Your task to perform on an android device: turn off translation in the chrome app Image 0: 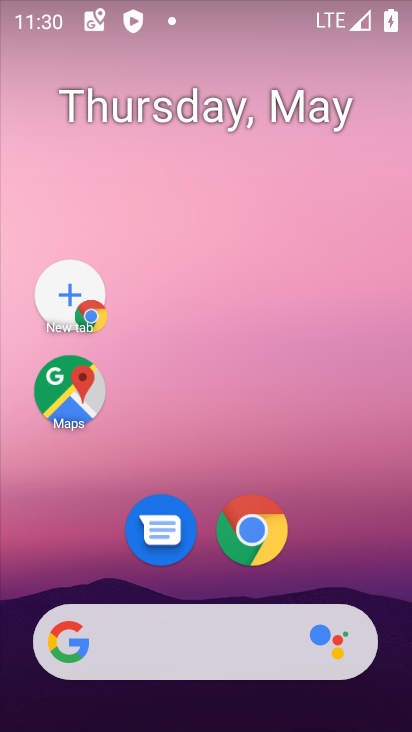
Step 0: drag from (240, 696) to (224, 335)
Your task to perform on an android device: turn off translation in the chrome app Image 1: 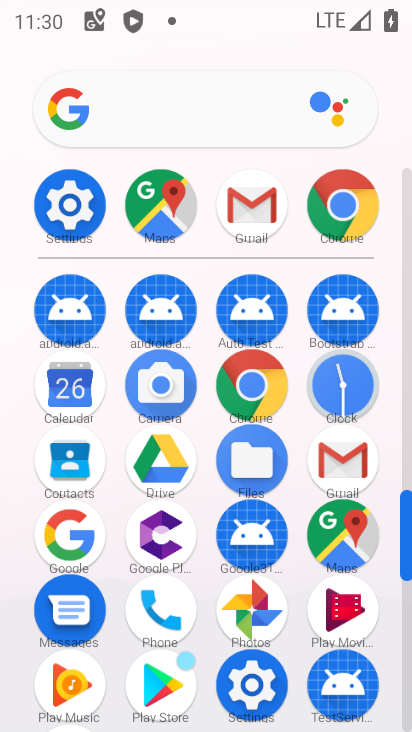
Step 1: click (252, 395)
Your task to perform on an android device: turn off translation in the chrome app Image 2: 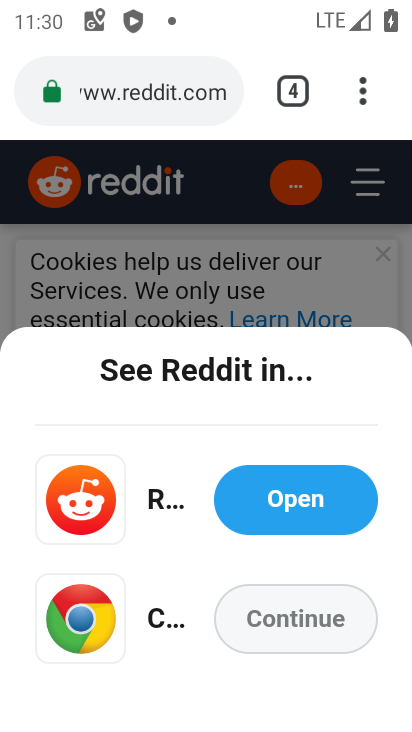
Step 2: press back button
Your task to perform on an android device: turn off translation in the chrome app Image 3: 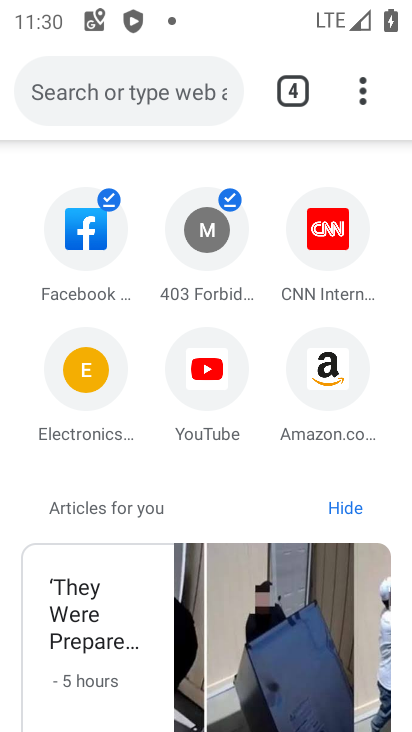
Step 3: drag from (360, 90) to (93, 551)
Your task to perform on an android device: turn off translation in the chrome app Image 4: 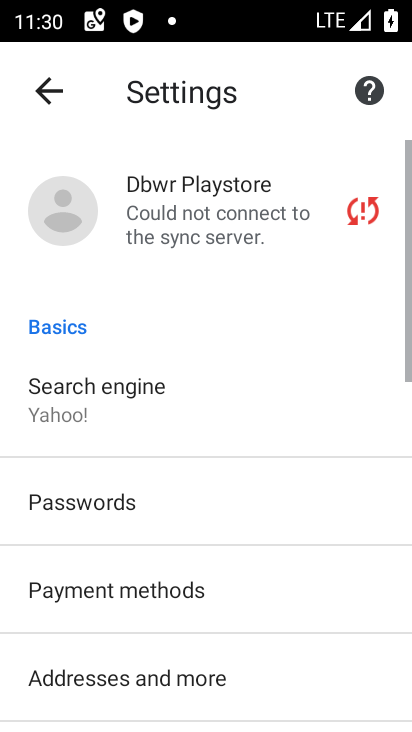
Step 4: click (93, 551)
Your task to perform on an android device: turn off translation in the chrome app Image 5: 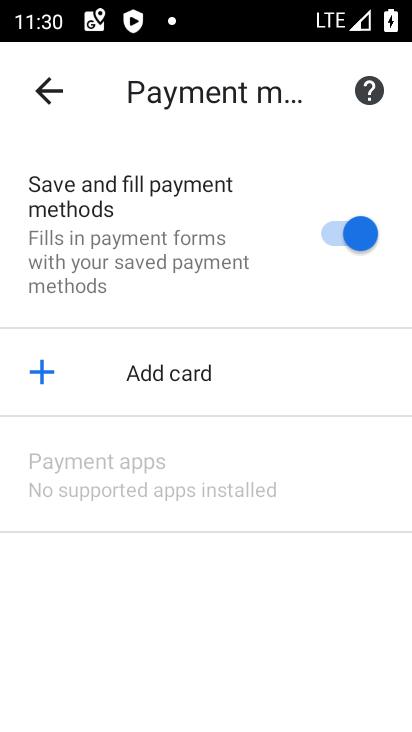
Step 5: click (51, 97)
Your task to perform on an android device: turn off translation in the chrome app Image 6: 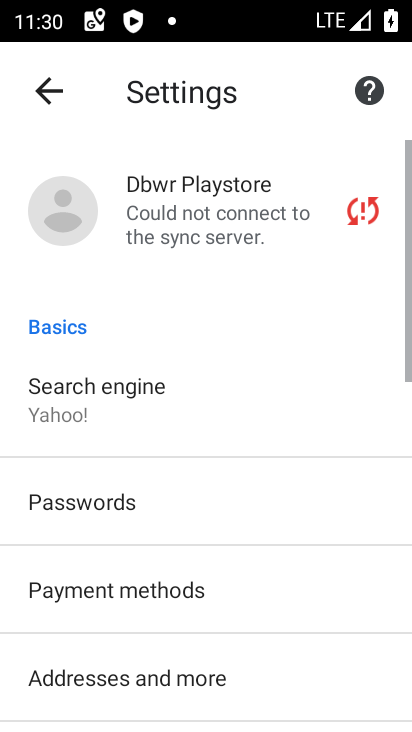
Step 6: click (42, 84)
Your task to perform on an android device: turn off translation in the chrome app Image 7: 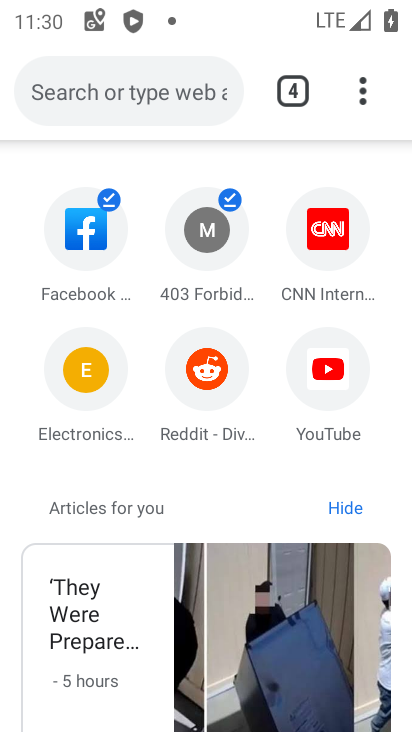
Step 7: drag from (139, 552) to (203, 246)
Your task to perform on an android device: turn off translation in the chrome app Image 8: 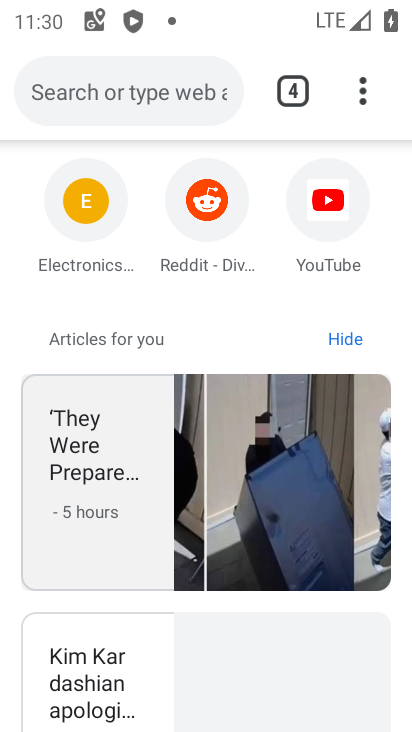
Step 8: drag from (217, 482) to (208, 377)
Your task to perform on an android device: turn off translation in the chrome app Image 9: 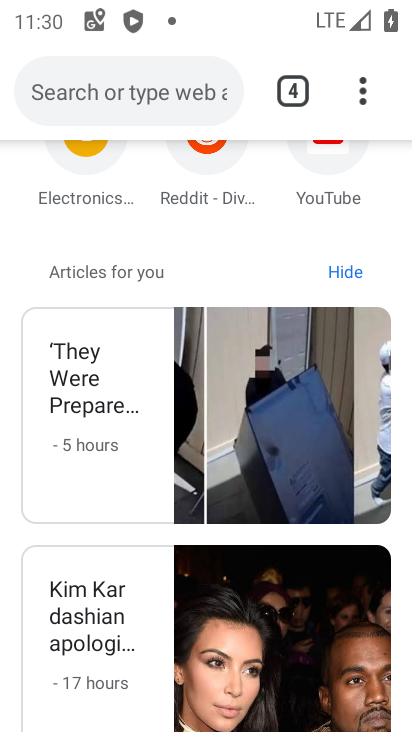
Step 9: drag from (109, 602) to (109, 432)
Your task to perform on an android device: turn off translation in the chrome app Image 10: 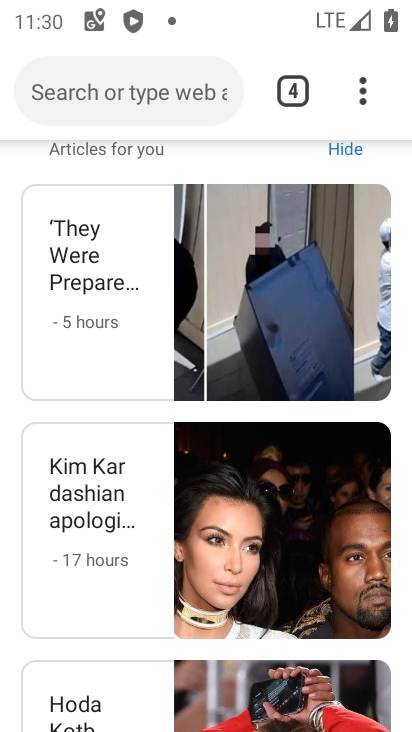
Step 10: drag from (364, 97) to (96, 569)
Your task to perform on an android device: turn off translation in the chrome app Image 11: 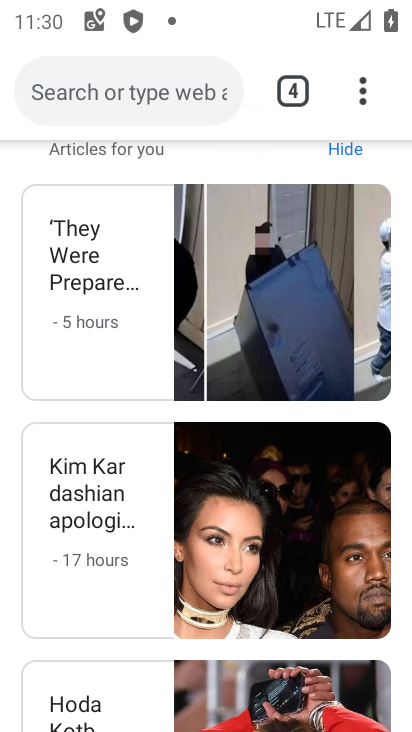
Step 11: click (96, 568)
Your task to perform on an android device: turn off translation in the chrome app Image 12: 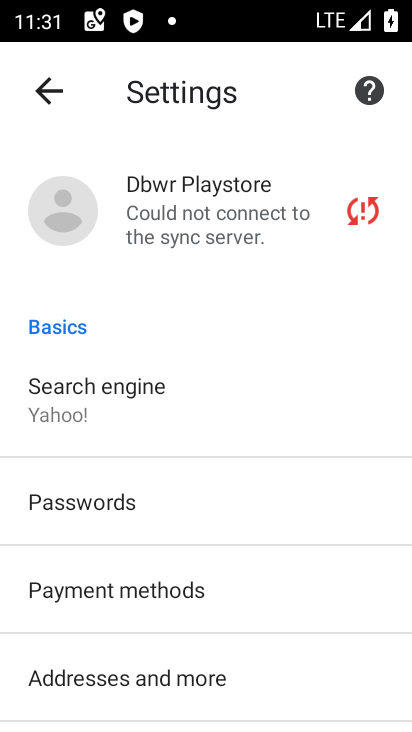
Step 12: drag from (188, 573) to (188, 246)
Your task to perform on an android device: turn off translation in the chrome app Image 13: 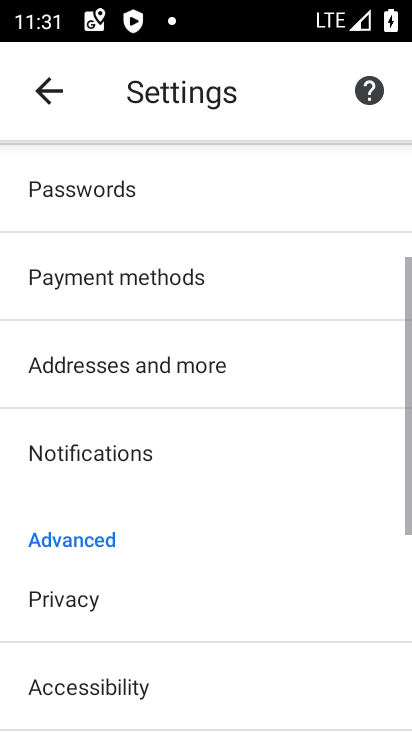
Step 13: drag from (231, 483) to (231, 228)
Your task to perform on an android device: turn off translation in the chrome app Image 14: 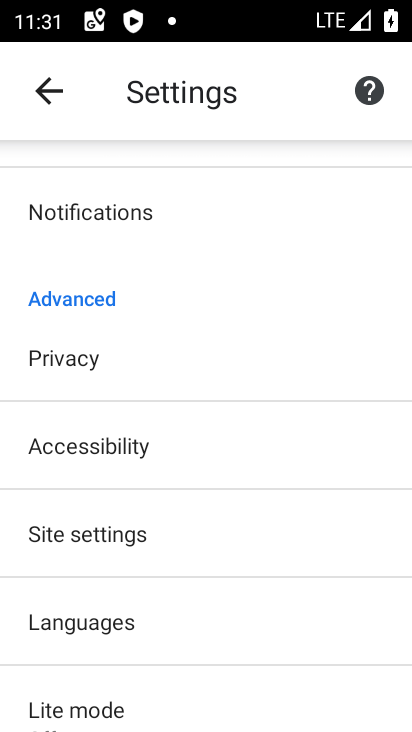
Step 14: click (98, 628)
Your task to perform on an android device: turn off translation in the chrome app Image 15: 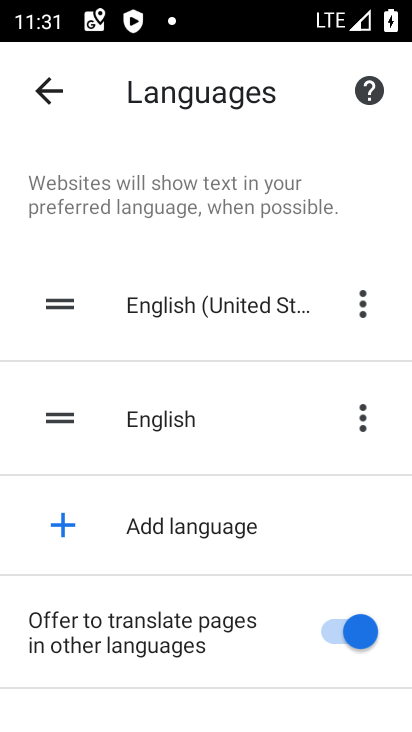
Step 15: click (386, 627)
Your task to perform on an android device: turn off translation in the chrome app Image 16: 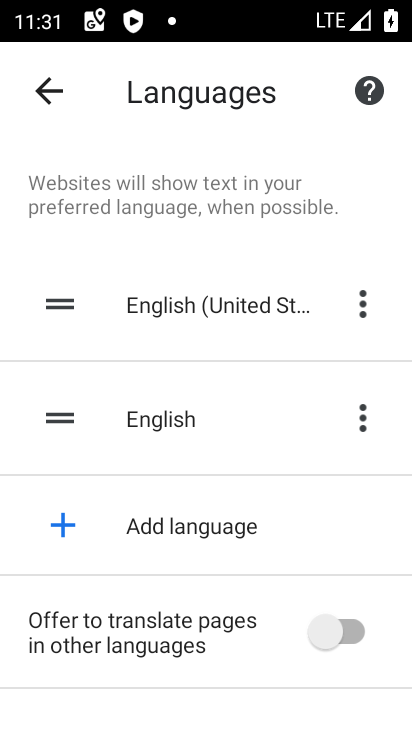
Step 16: task complete